Your task to perform on an android device: Open the calendar and show me this week's events Image 0: 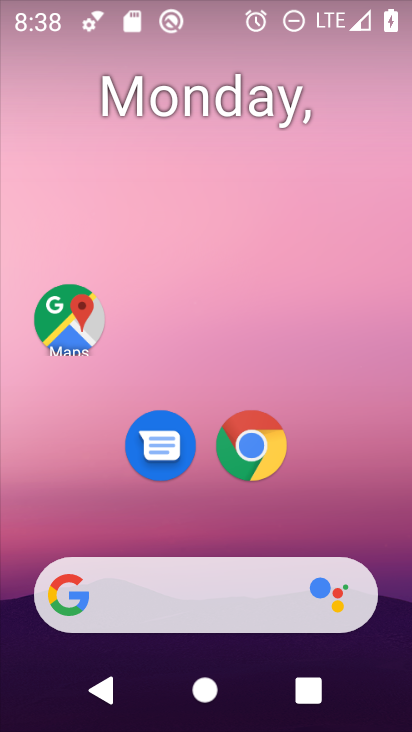
Step 0: drag from (321, 501) to (242, 140)
Your task to perform on an android device: Open the calendar and show me this week's events Image 1: 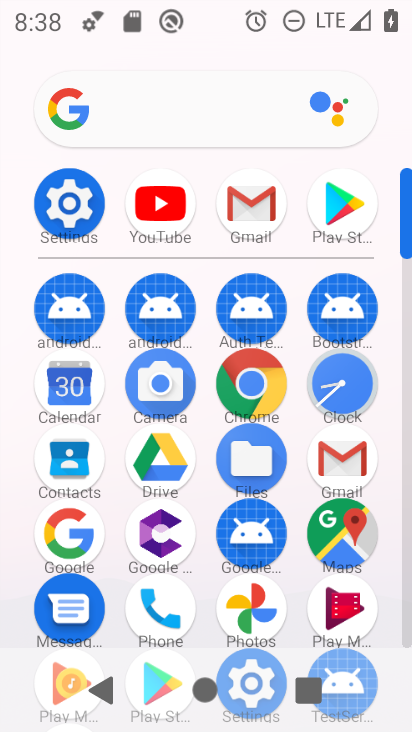
Step 1: click (64, 380)
Your task to perform on an android device: Open the calendar and show me this week's events Image 2: 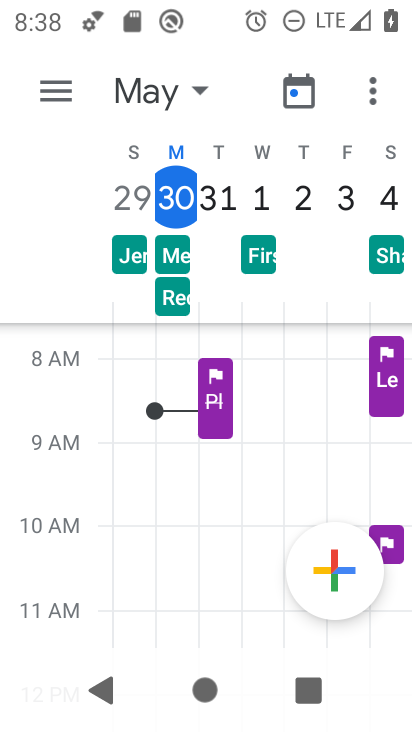
Step 2: click (195, 84)
Your task to perform on an android device: Open the calendar and show me this week's events Image 3: 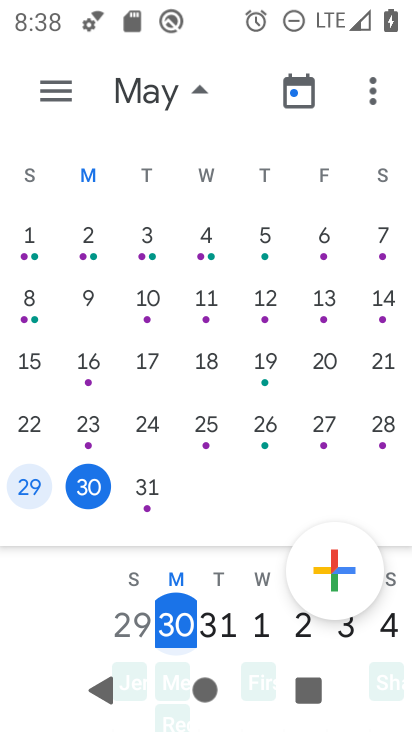
Step 3: click (195, 84)
Your task to perform on an android device: Open the calendar and show me this week's events Image 4: 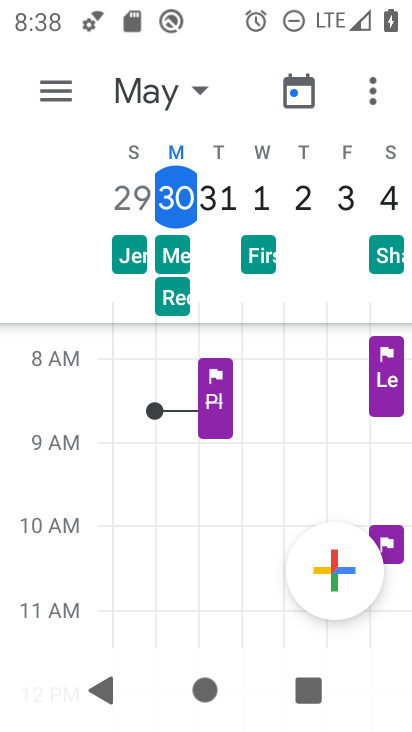
Step 4: task complete